Your task to perform on an android device: What's on my calendar today? Image 0: 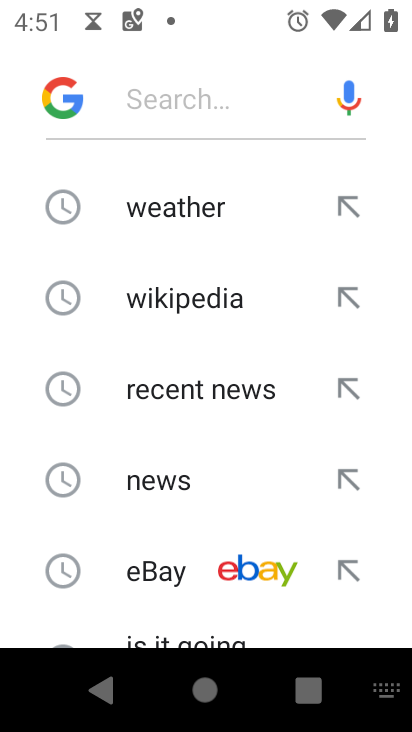
Step 0: press home button
Your task to perform on an android device: What's on my calendar today? Image 1: 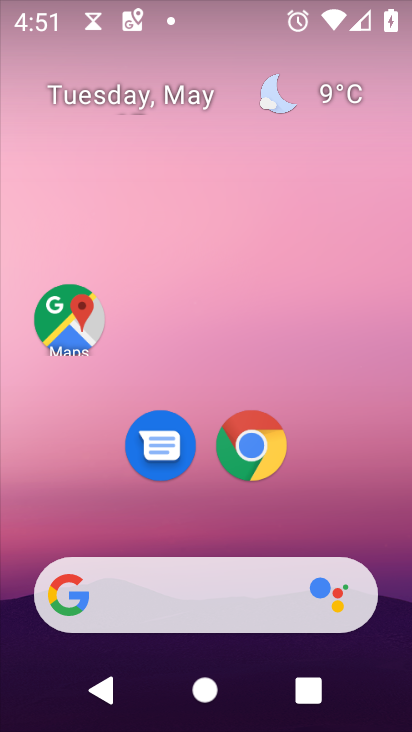
Step 1: drag from (340, 597) to (292, 127)
Your task to perform on an android device: What's on my calendar today? Image 2: 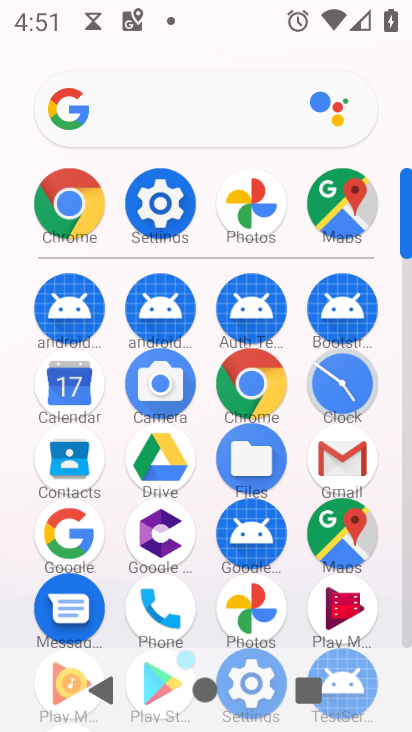
Step 2: click (80, 392)
Your task to perform on an android device: What's on my calendar today? Image 3: 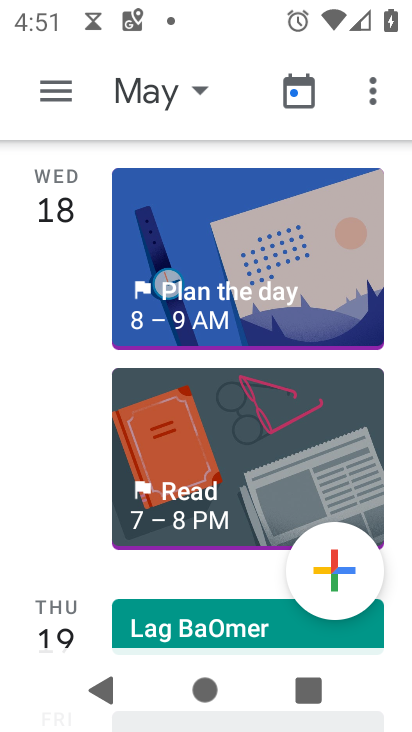
Step 3: click (204, 82)
Your task to perform on an android device: What's on my calendar today? Image 4: 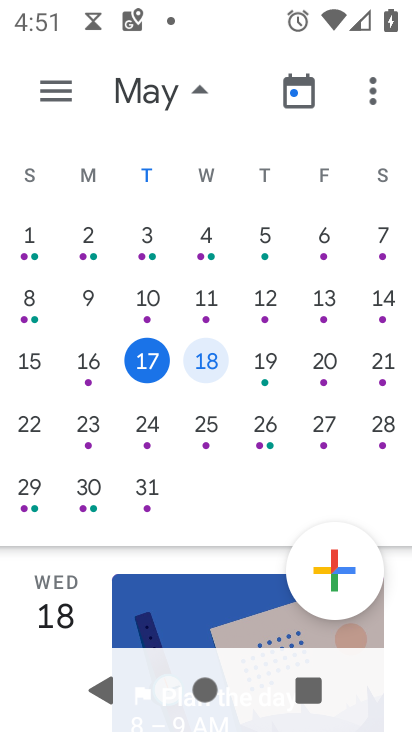
Step 4: click (153, 357)
Your task to perform on an android device: What's on my calendar today? Image 5: 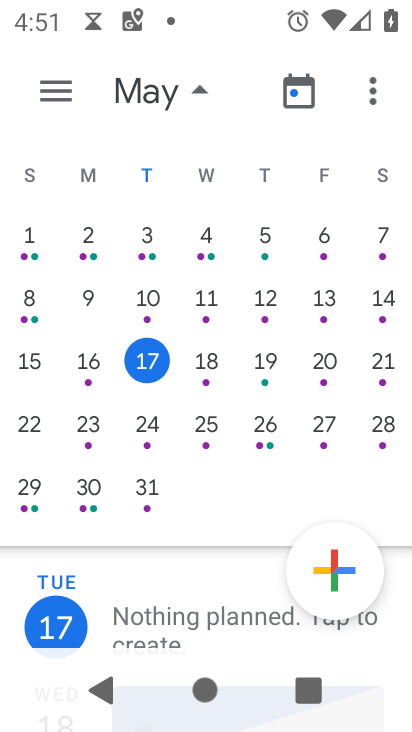
Step 5: task complete